Your task to perform on an android device: Open Youtube and go to the subscriptions tab Image 0: 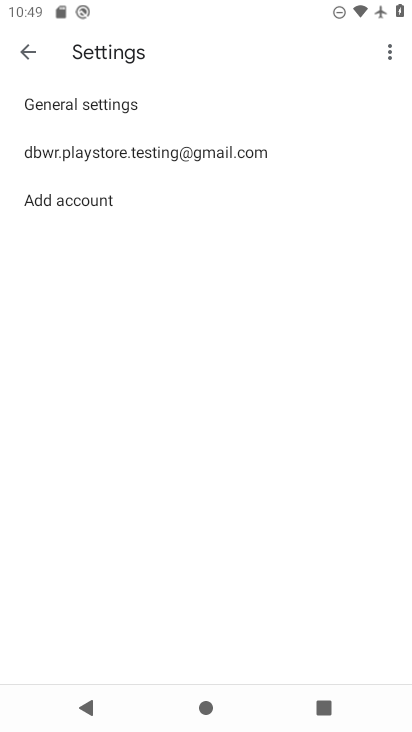
Step 0: press home button
Your task to perform on an android device: Open Youtube and go to the subscriptions tab Image 1: 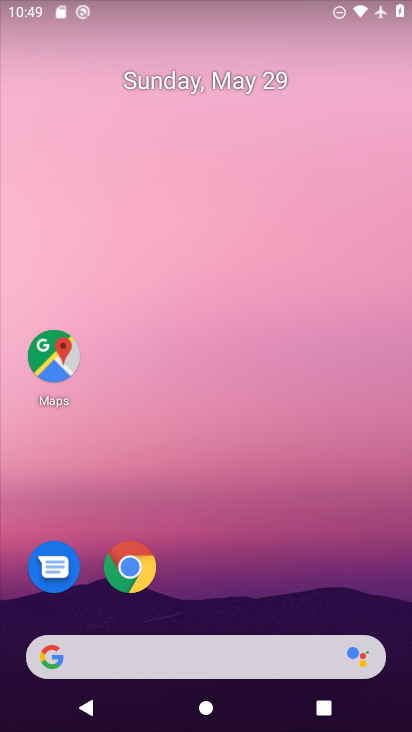
Step 1: drag from (395, 622) to (285, 152)
Your task to perform on an android device: Open Youtube and go to the subscriptions tab Image 2: 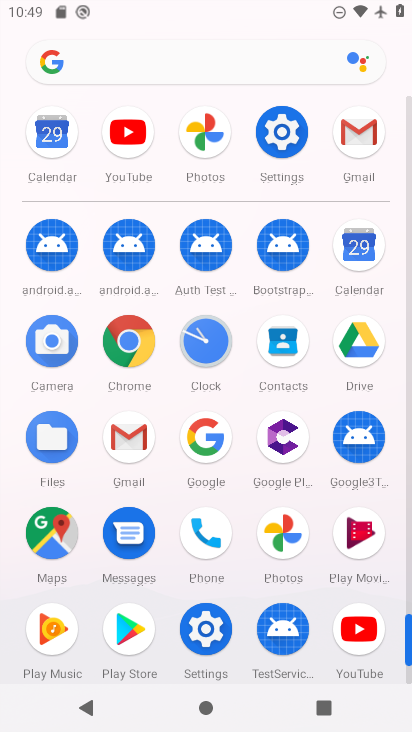
Step 2: click (356, 630)
Your task to perform on an android device: Open Youtube and go to the subscriptions tab Image 3: 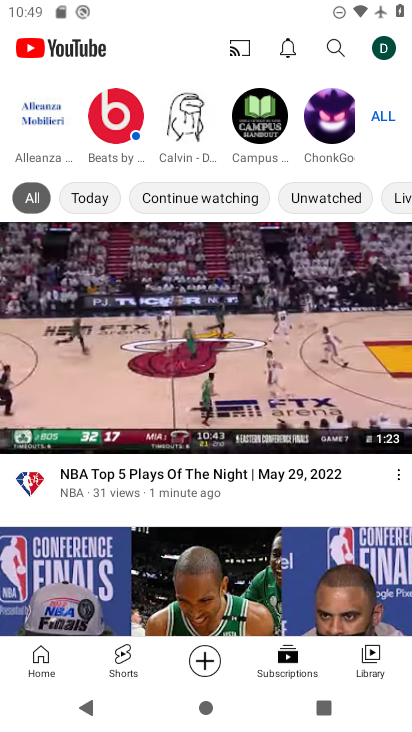
Step 3: click (283, 659)
Your task to perform on an android device: Open Youtube and go to the subscriptions tab Image 4: 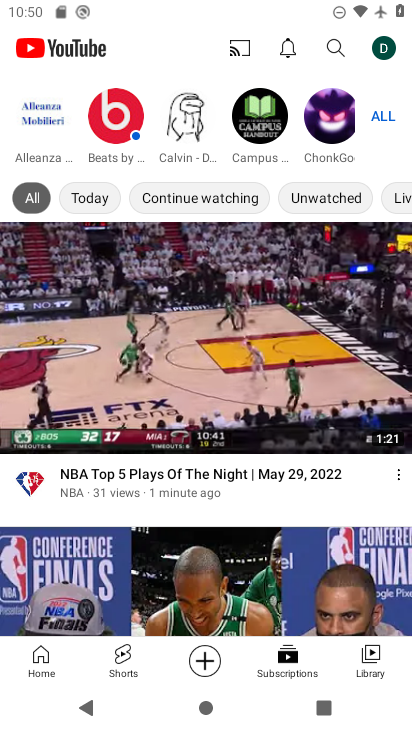
Step 4: task complete